Your task to perform on an android device: allow notifications from all sites in the chrome app Image 0: 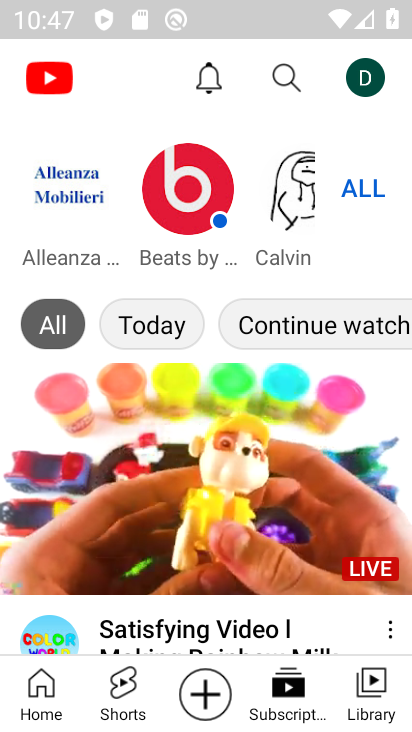
Step 0: press home button
Your task to perform on an android device: allow notifications from all sites in the chrome app Image 1: 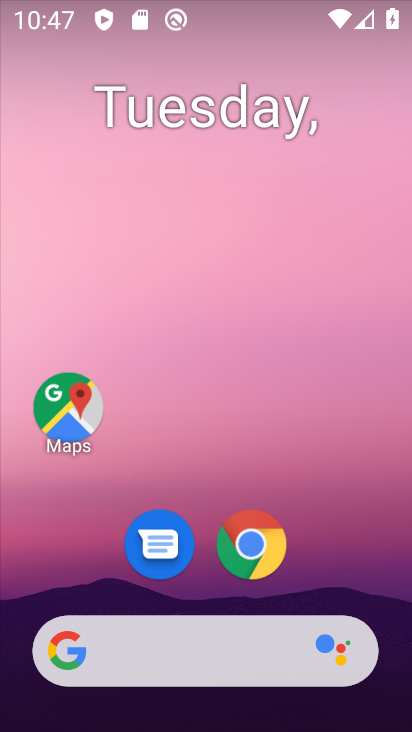
Step 1: drag from (394, 613) to (296, 58)
Your task to perform on an android device: allow notifications from all sites in the chrome app Image 2: 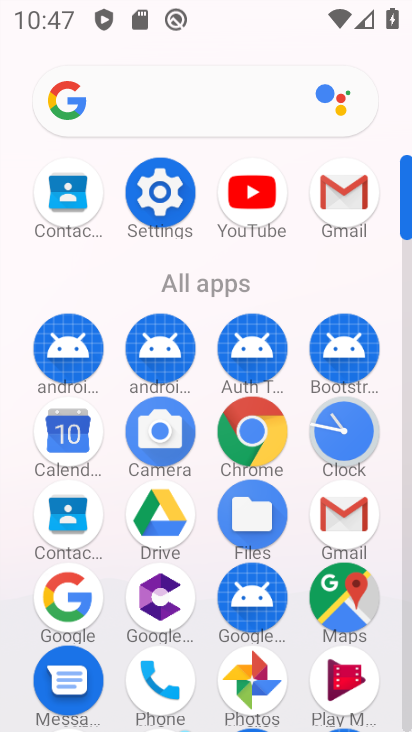
Step 2: click (254, 425)
Your task to perform on an android device: allow notifications from all sites in the chrome app Image 3: 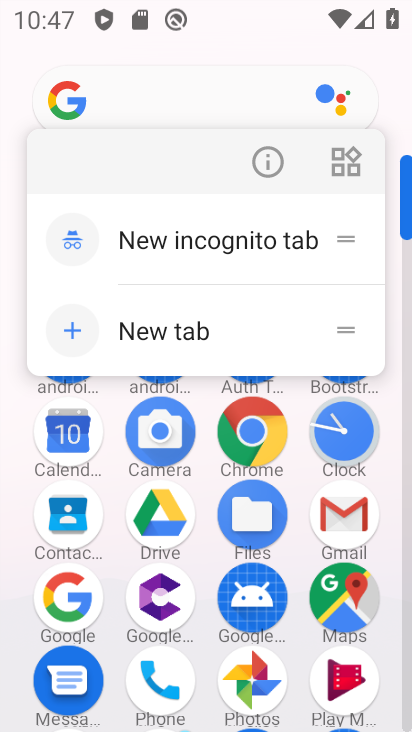
Step 3: click (254, 425)
Your task to perform on an android device: allow notifications from all sites in the chrome app Image 4: 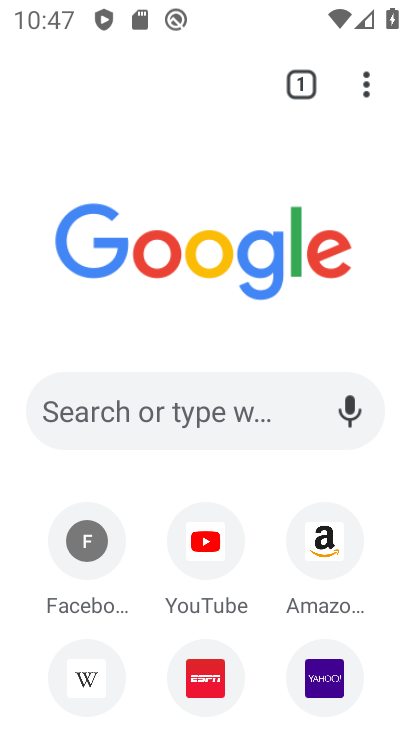
Step 4: click (375, 74)
Your task to perform on an android device: allow notifications from all sites in the chrome app Image 5: 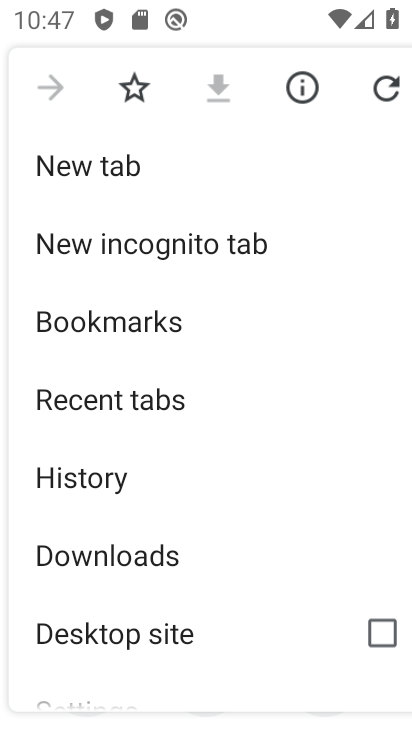
Step 5: drag from (196, 541) to (242, 214)
Your task to perform on an android device: allow notifications from all sites in the chrome app Image 6: 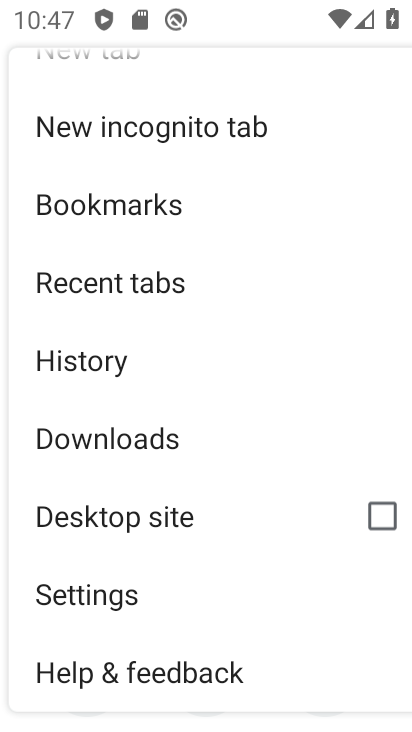
Step 6: click (155, 586)
Your task to perform on an android device: allow notifications from all sites in the chrome app Image 7: 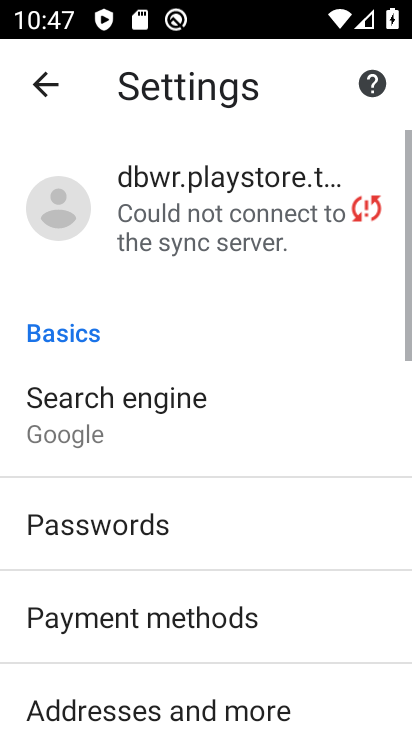
Step 7: drag from (155, 586) to (211, 147)
Your task to perform on an android device: allow notifications from all sites in the chrome app Image 8: 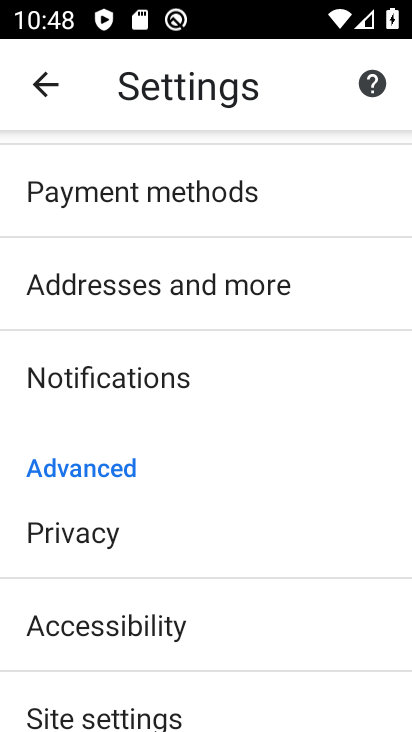
Step 8: click (189, 372)
Your task to perform on an android device: allow notifications from all sites in the chrome app Image 9: 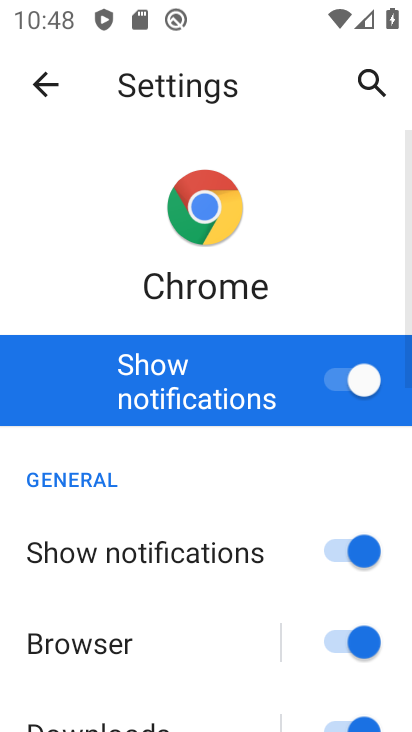
Step 9: task complete